Your task to perform on an android device: add a label to a message in the gmail app Image 0: 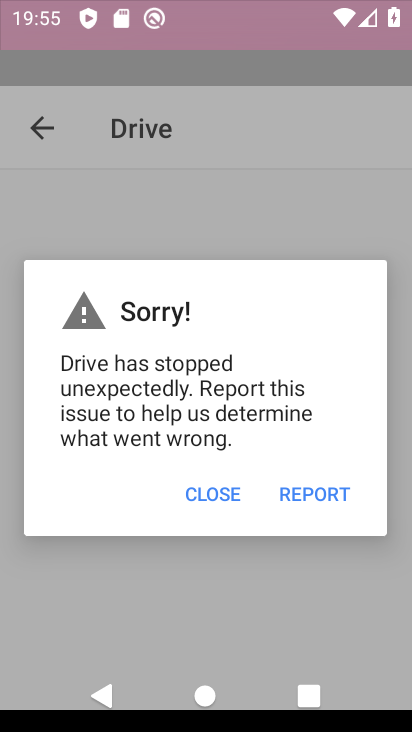
Step 0: press home button
Your task to perform on an android device: add a label to a message in the gmail app Image 1: 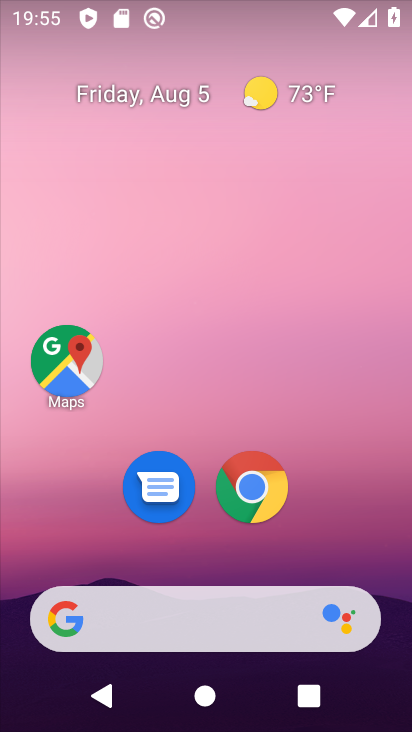
Step 1: drag from (187, 604) to (265, 149)
Your task to perform on an android device: add a label to a message in the gmail app Image 2: 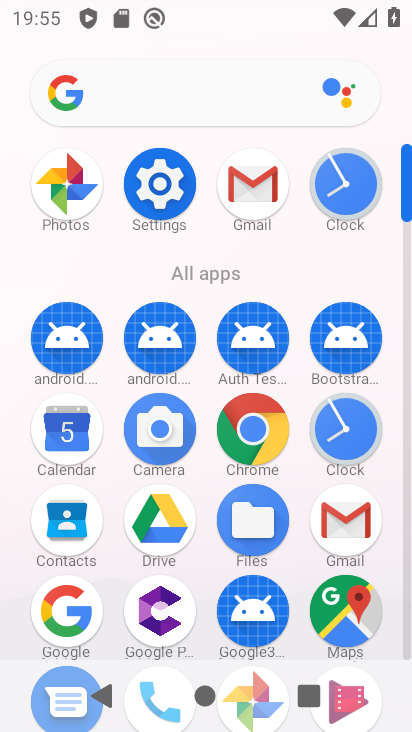
Step 2: click (262, 190)
Your task to perform on an android device: add a label to a message in the gmail app Image 3: 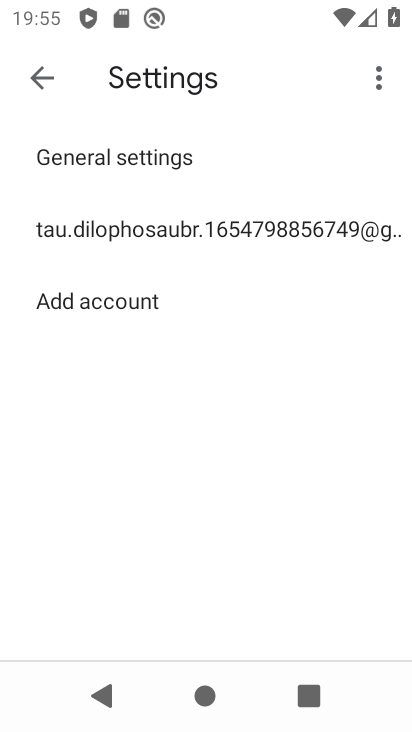
Step 3: click (40, 71)
Your task to perform on an android device: add a label to a message in the gmail app Image 4: 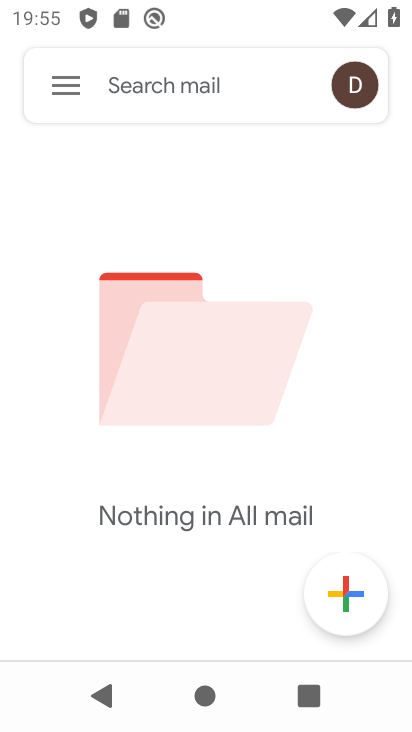
Step 4: click (72, 84)
Your task to perform on an android device: add a label to a message in the gmail app Image 5: 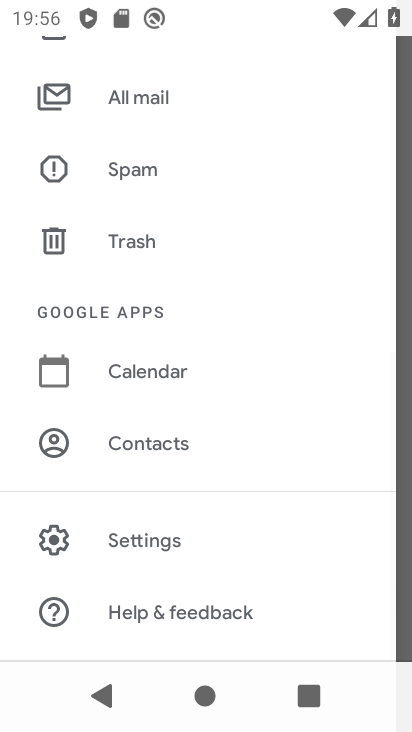
Step 5: drag from (249, 152) to (215, 572)
Your task to perform on an android device: add a label to a message in the gmail app Image 6: 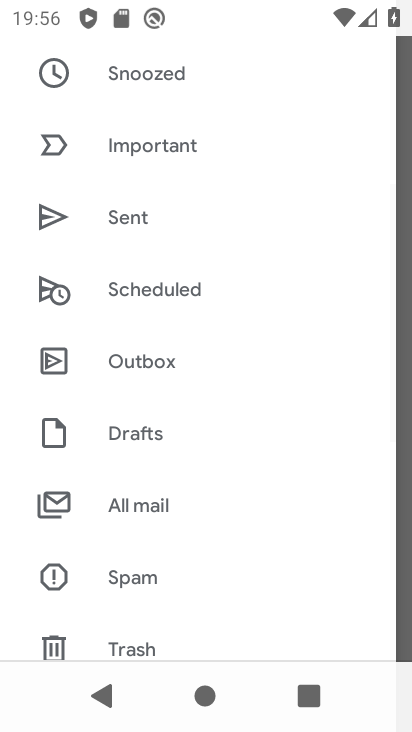
Step 6: drag from (291, 126) to (237, 560)
Your task to perform on an android device: add a label to a message in the gmail app Image 7: 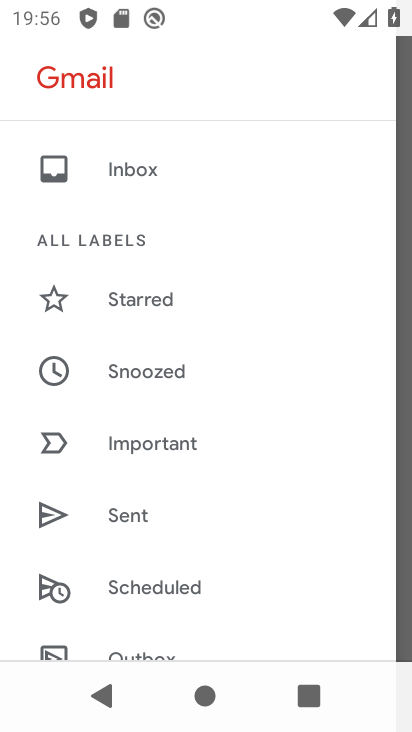
Step 7: click (156, 160)
Your task to perform on an android device: add a label to a message in the gmail app Image 8: 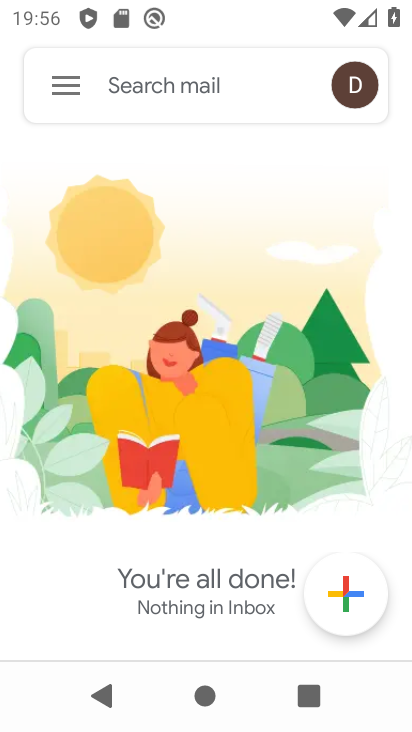
Step 8: task complete